Your task to perform on an android device: open wifi settings Image 0: 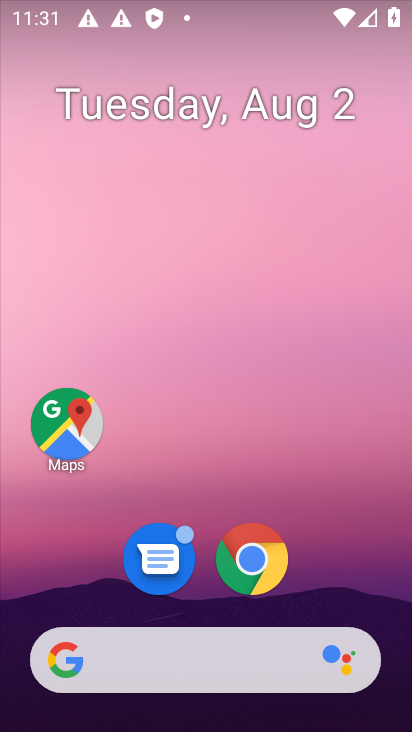
Step 0: drag from (214, 605) to (214, 70)
Your task to perform on an android device: open wifi settings Image 1: 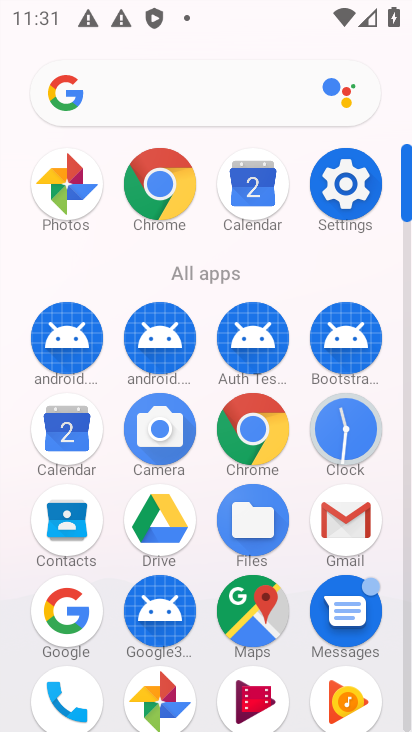
Step 1: click (333, 192)
Your task to perform on an android device: open wifi settings Image 2: 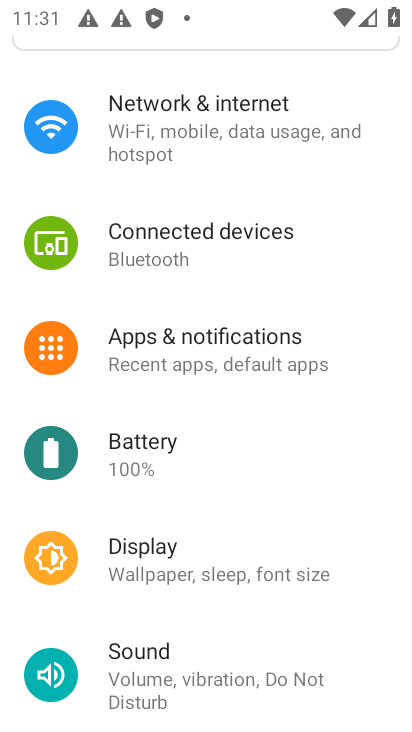
Step 2: drag from (250, 151) to (207, 523)
Your task to perform on an android device: open wifi settings Image 3: 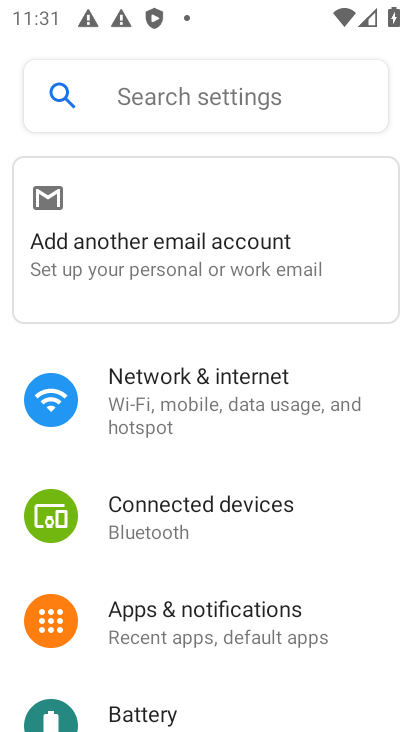
Step 3: click (179, 400)
Your task to perform on an android device: open wifi settings Image 4: 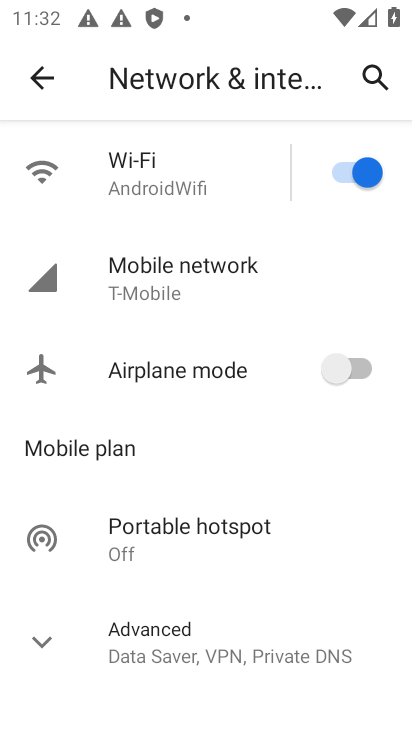
Step 4: click (139, 179)
Your task to perform on an android device: open wifi settings Image 5: 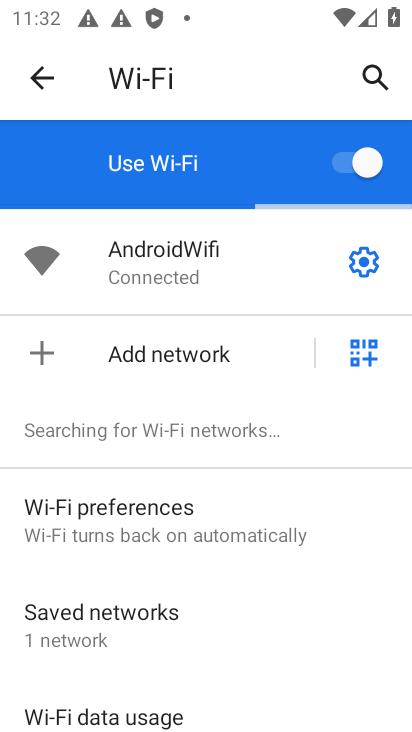
Step 5: task complete